Your task to perform on an android device: uninstall "Walmart Shopping & Grocery" Image 0: 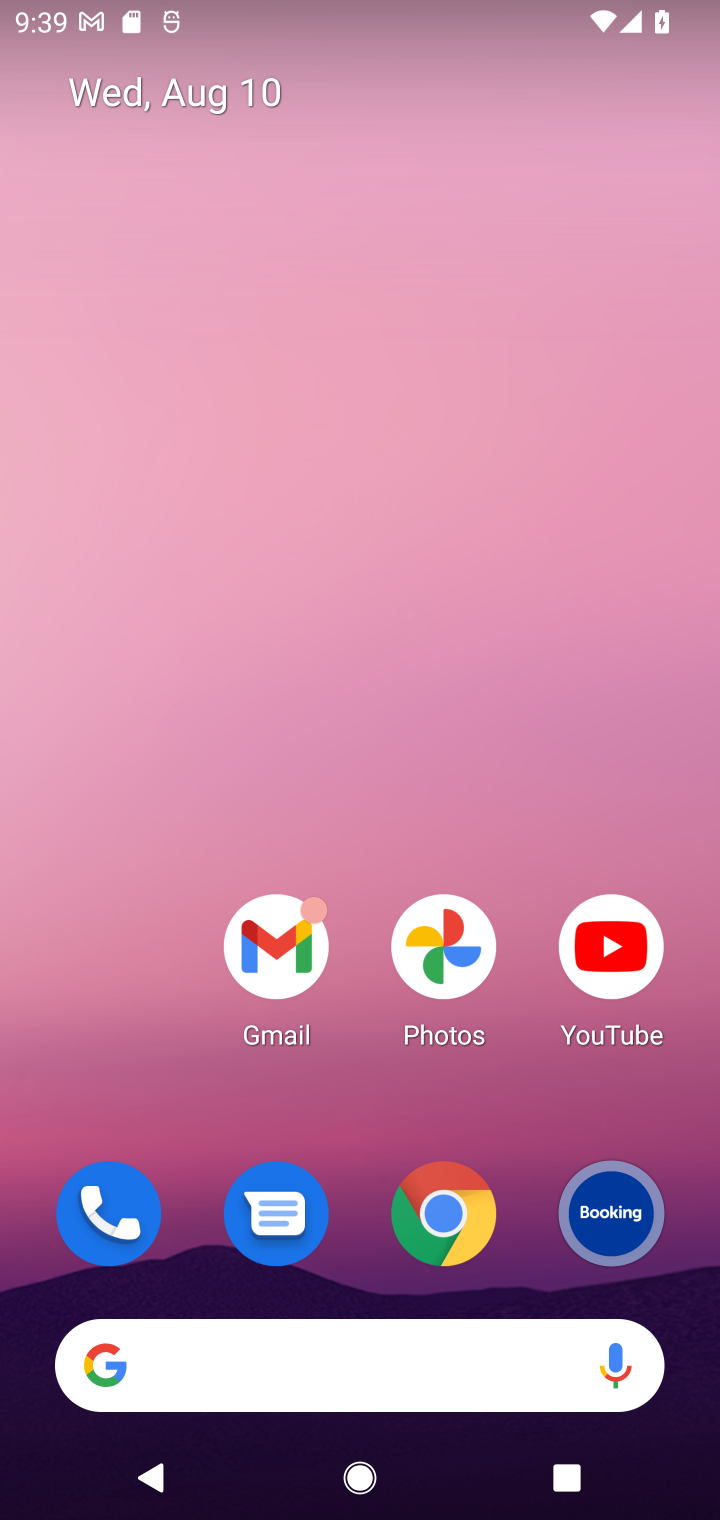
Step 0: drag from (218, 536) to (270, 394)
Your task to perform on an android device: uninstall "Walmart Shopping & Grocery" Image 1: 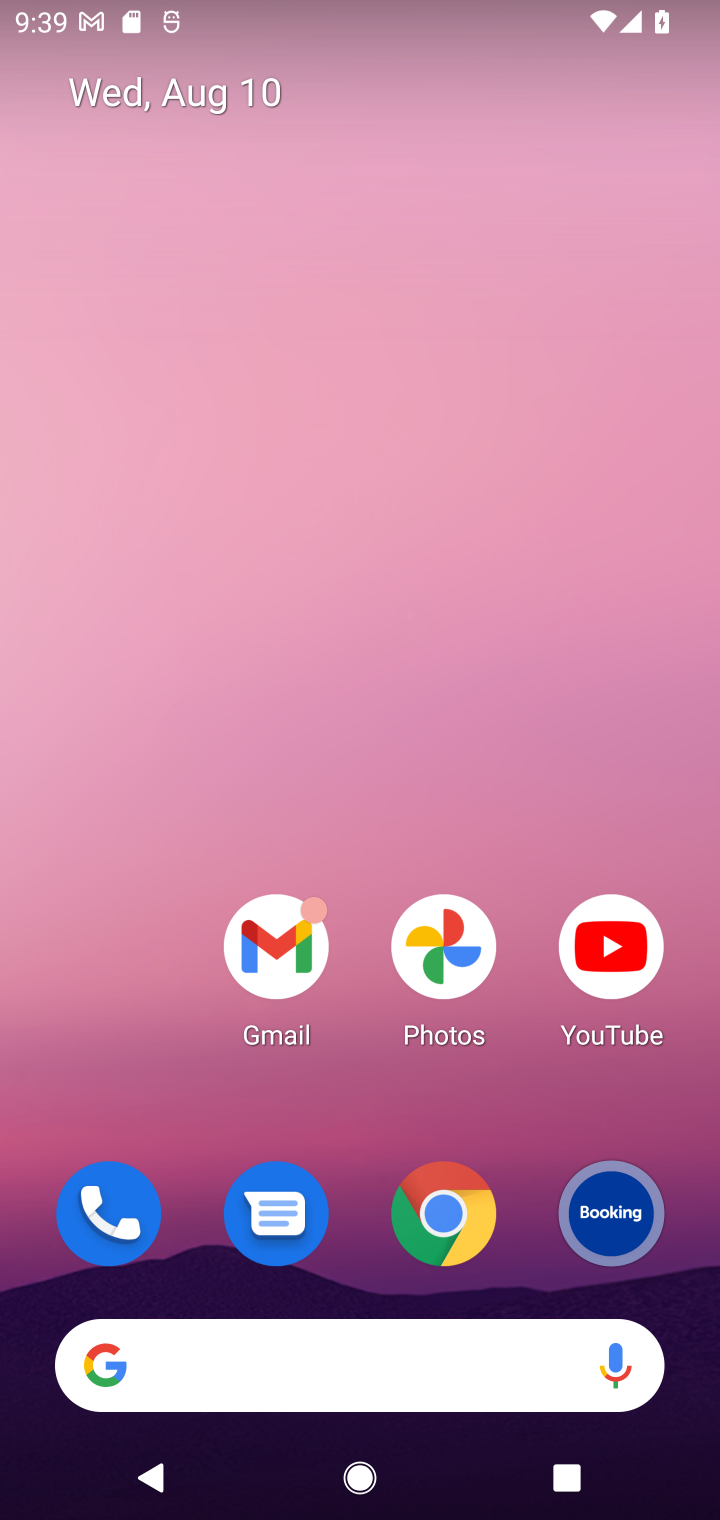
Step 1: drag from (158, 678) to (136, 129)
Your task to perform on an android device: uninstall "Walmart Shopping & Grocery" Image 2: 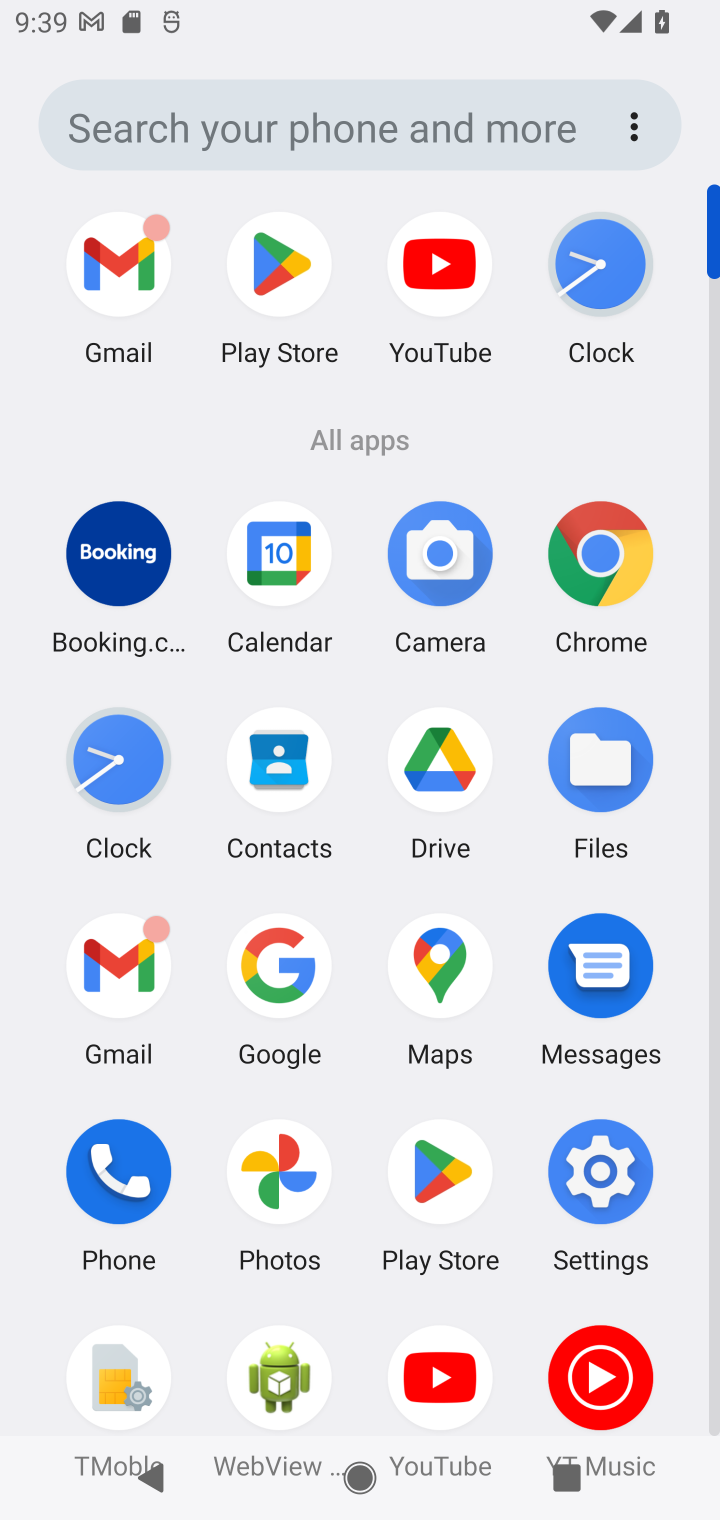
Step 2: click (296, 273)
Your task to perform on an android device: uninstall "Walmart Shopping & Grocery" Image 3: 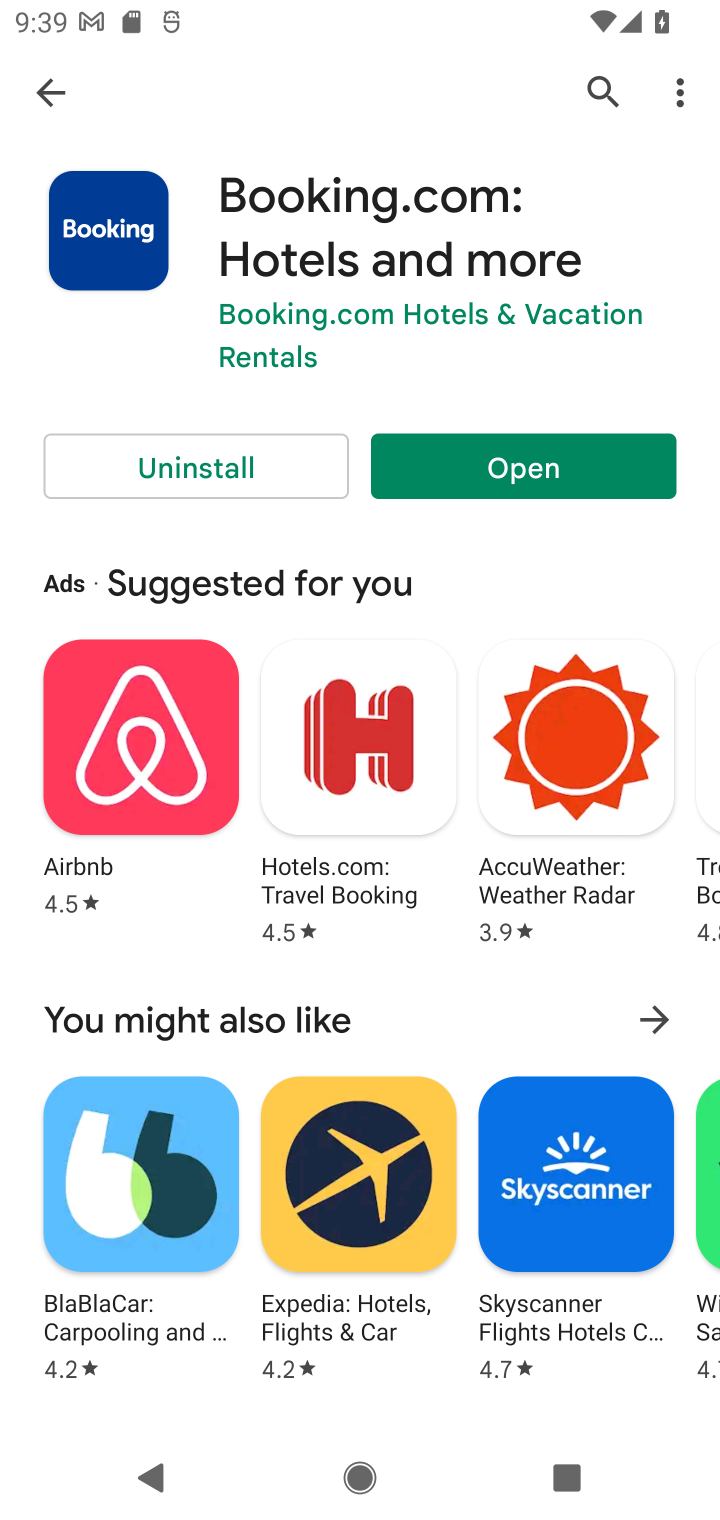
Step 3: click (597, 74)
Your task to perform on an android device: uninstall "Walmart Shopping & Grocery" Image 4: 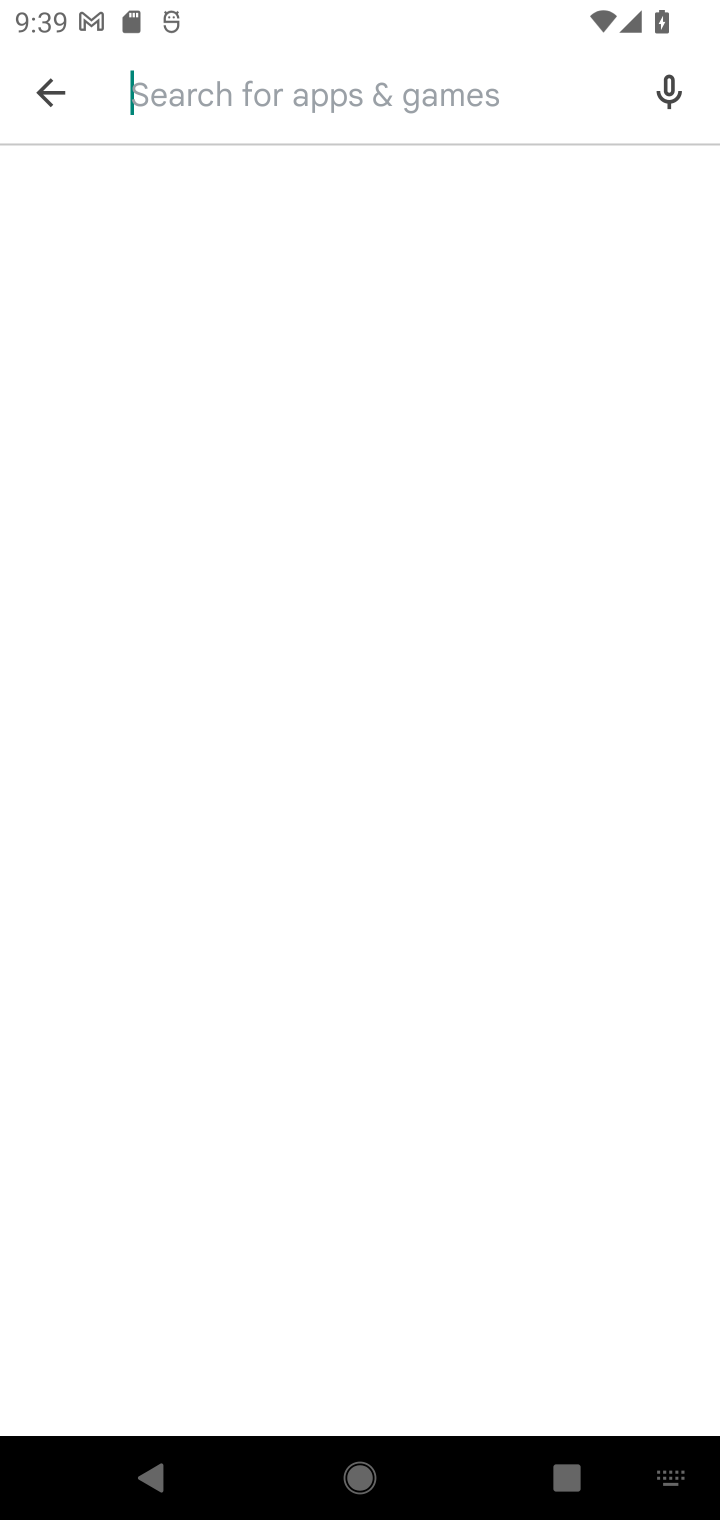
Step 4: click (363, 112)
Your task to perform on an android device: uninstall "Walmart Shopping & Grocery" Image 5: 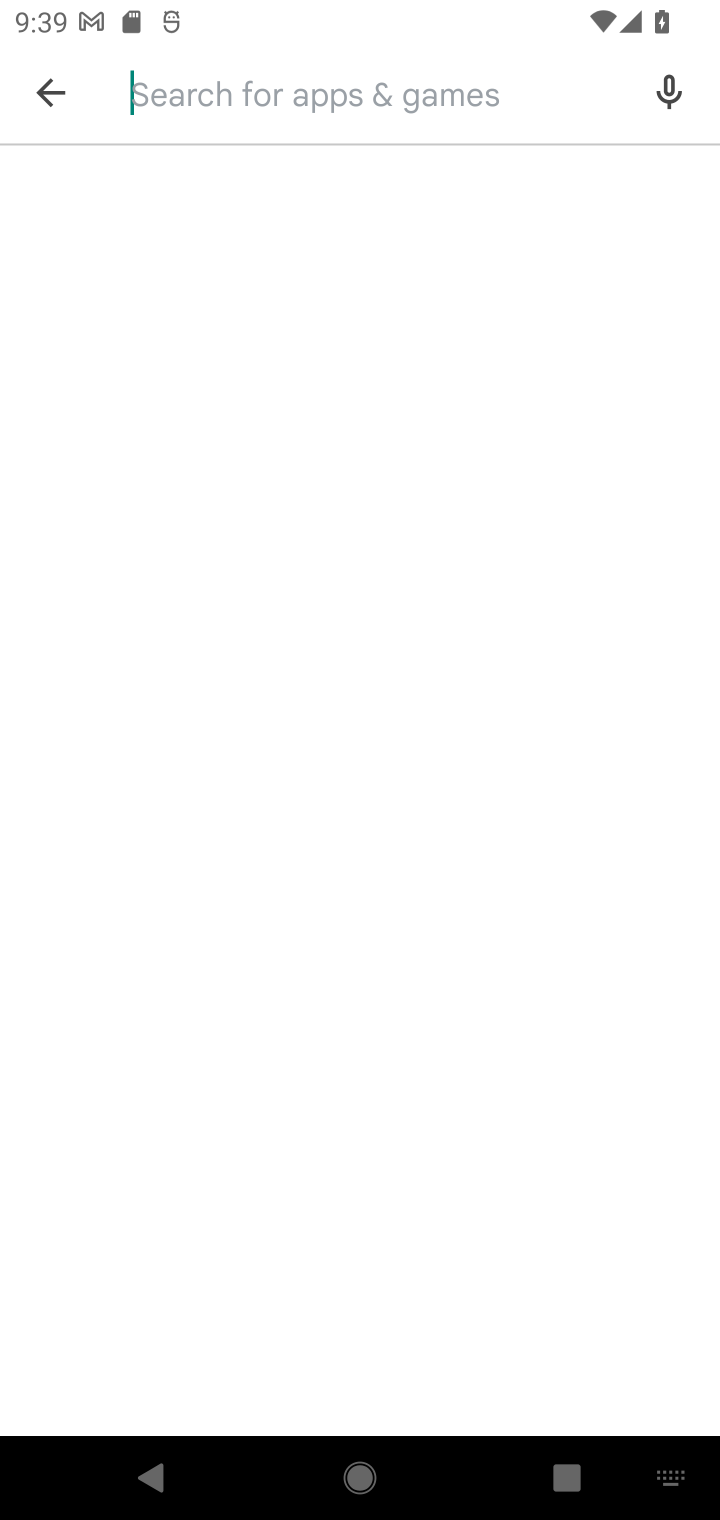
Step 5: type "Walmart Shopping & Grocery"
Your task to perform on an android device: uninstall "Walmart Shopping & Grocery" Image 6: 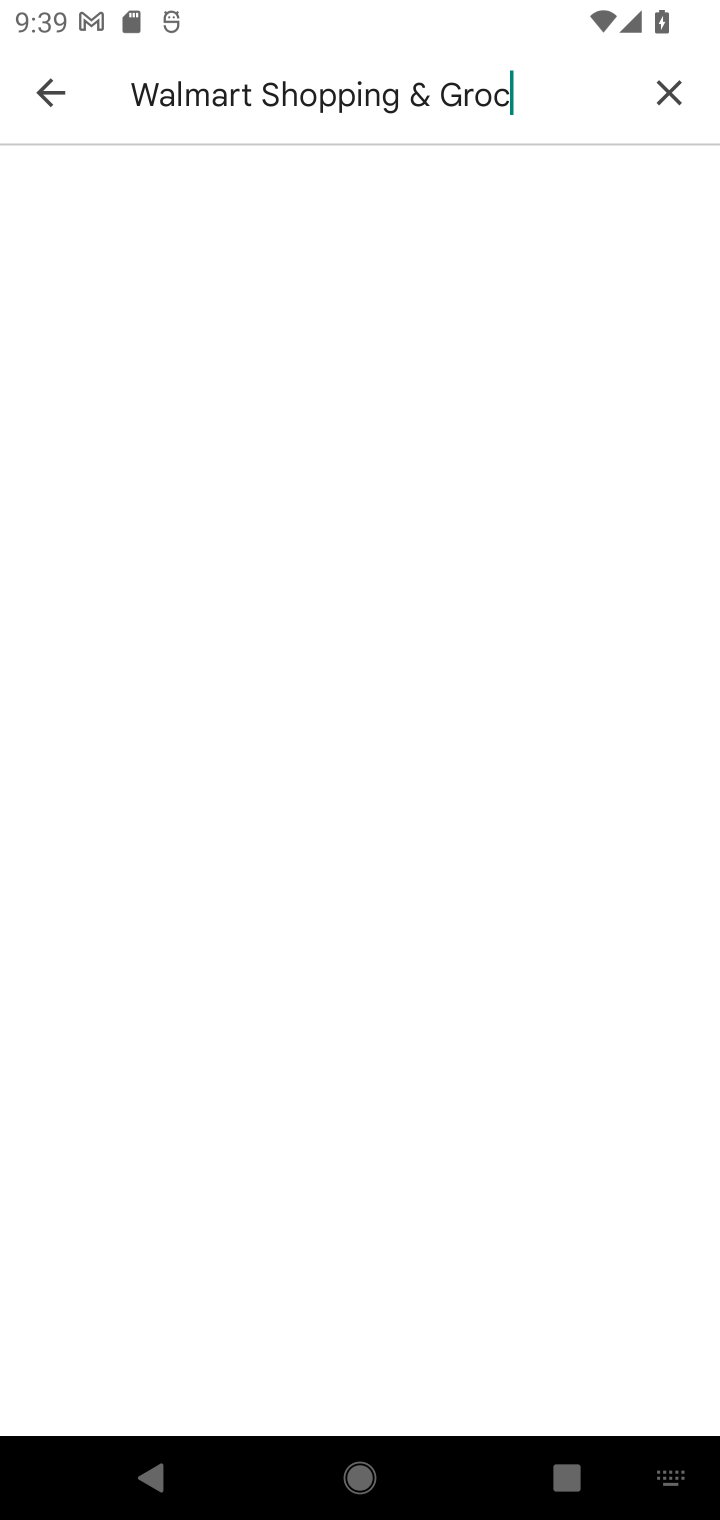
Step 6: press enter
Your task to perform on an android device: uninstall "Walmart Shopping & Grocery" Image 7: 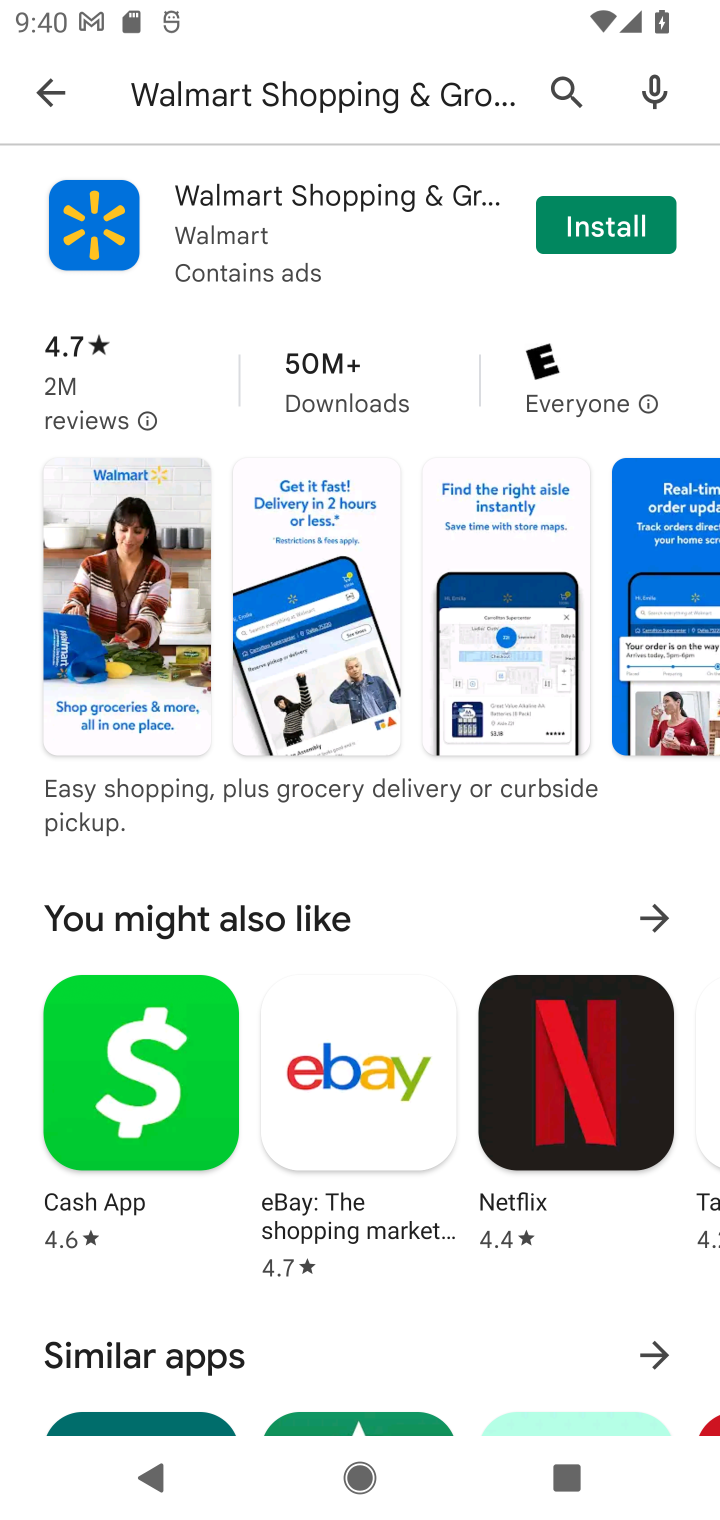
Step 7: task complete